Your task to perform on an android device: delete the emails in spam in the gmail app Image 0: 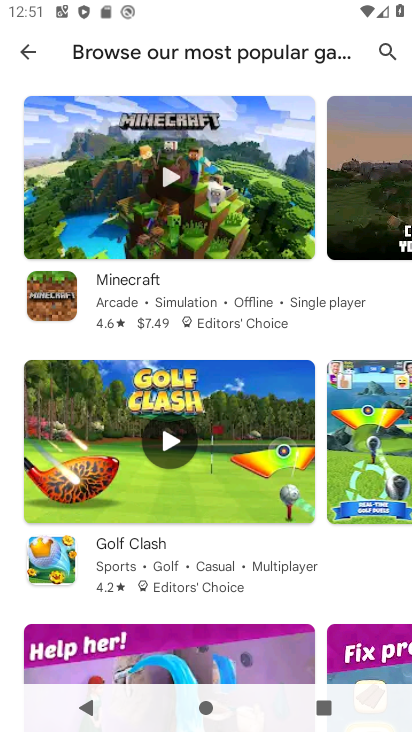
Step 0: press back button
Your task to perform on an android device: delete the emails in spam in the gmail app Image 1: 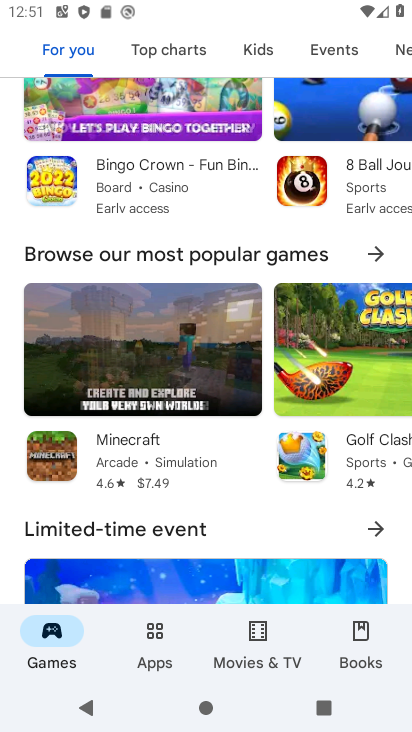
Step 1: press home button
Your task to perform on an android device: delete the emails in spam in the gmail app Image 2: 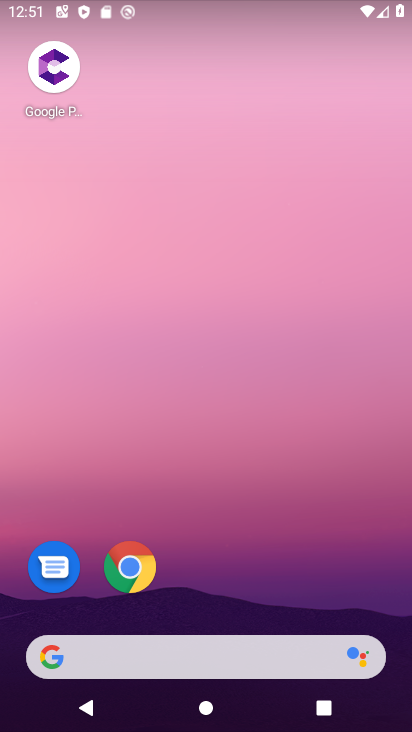
Step 2: drag from (190, 632) to (306, 115)
Your task to perform on an android device: delete the emails in spam in the gmail app Image 3: 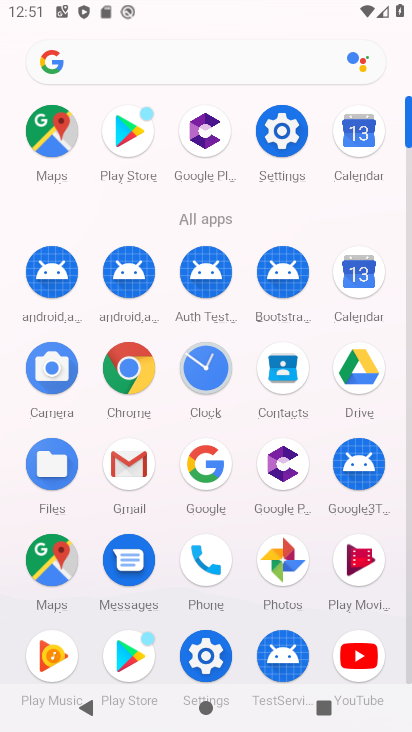
Step 3: click (120, 482)
Your task to perform on an android device: delete the emails in spam in the gmail app Image 4: 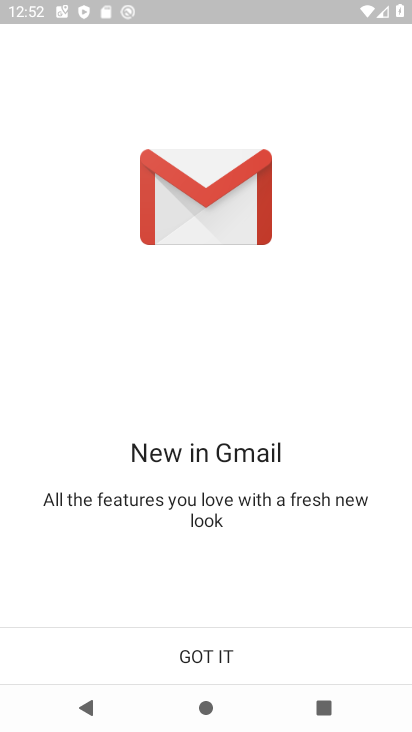
Step 4: click (228, 663)
Your task to perform on an android device: delete the emails in spam in the gmail app Image 5: 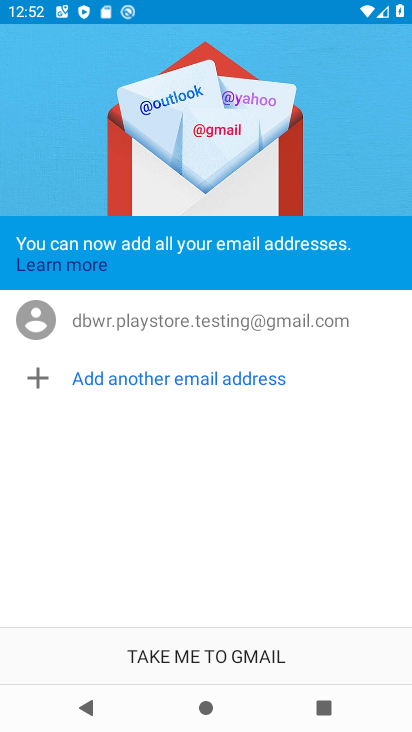
Step 5: click (278, 671)
Your task to perform on an android device: delete the emails in spam in the gmail app Image 6: 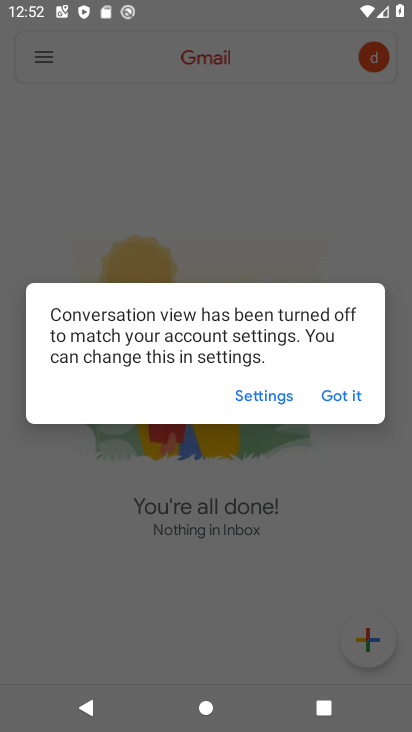
Step 6: click (363, 390)
Your task to perform on an android device: delete the emails in spam in the gmail app Image 7: 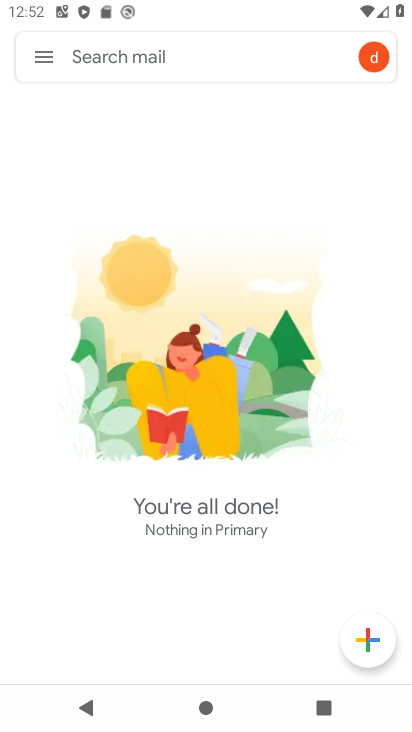
Step 7: click (65, 64)
Your task to perform on an android device: delete the emails in spam in the gmail app Image 8: 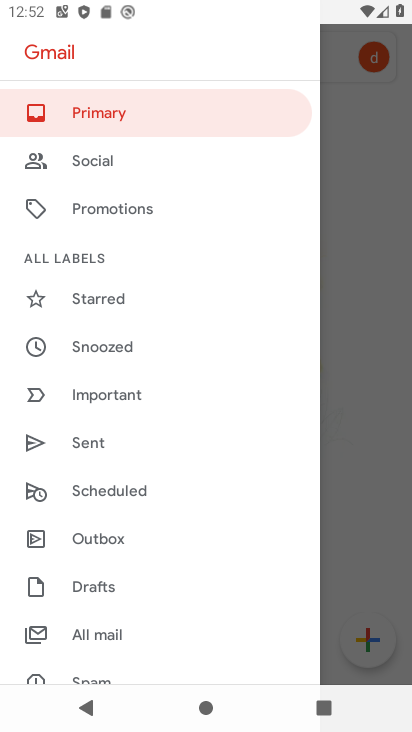
Step 8: drag from (137, 645) to (167, 516)
Your task to perform on an android device: delete the emails in spam in the gmail app Image 9: 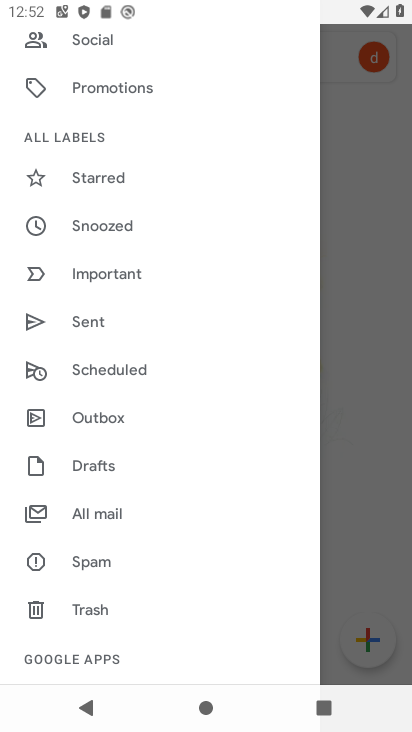
Step 9: click (147, 569)
Your task to perform on an android device: delete the emails in spam in the gmail app Image 10: 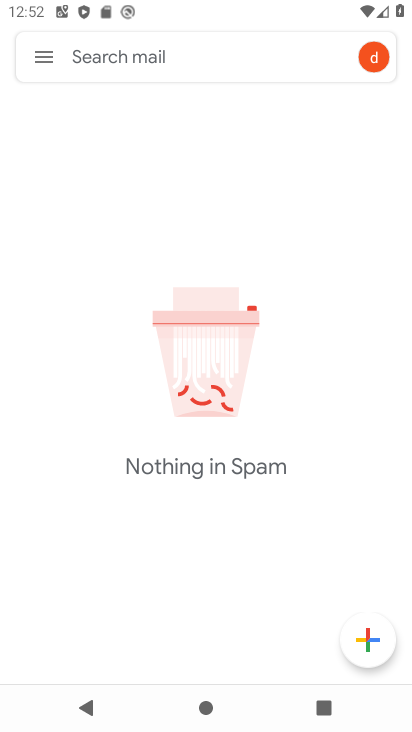
Step 10: task complete